Your task to perform on an android device: open app "Chime – Mobile Banking" (install if not already installed) and enter user name: "bullfrog@inbox.com" and password: "breaker" Image 0: 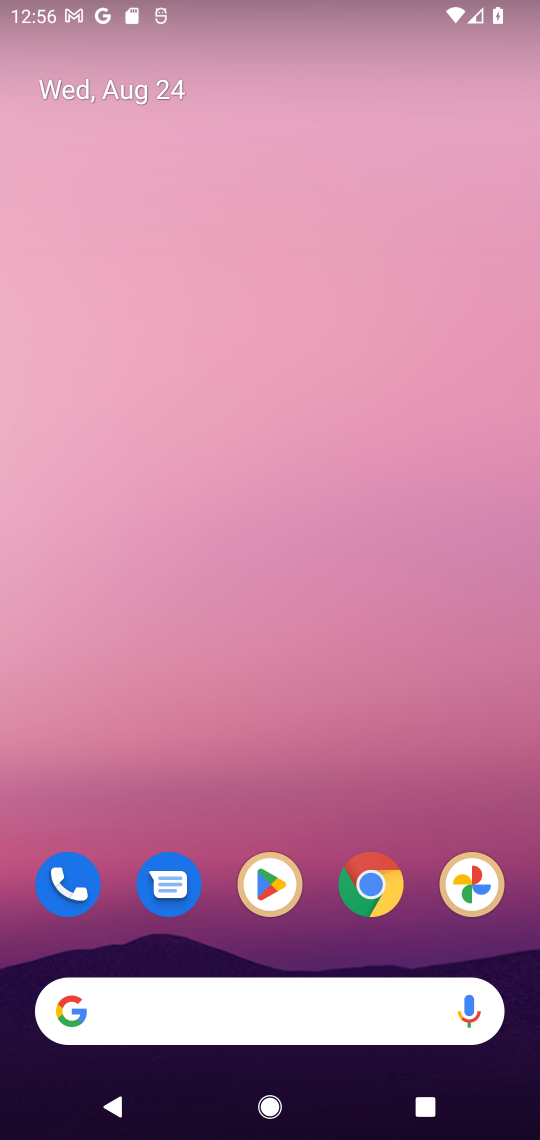
Step 0: drag from (265, 1008) to (367, 64)
Your task to perform on an android device: open app "Chime – Mobile Banking" (install if not already installed) and enter user name: "bullfrog@inbox.com" and password: "breaker" Image 1: 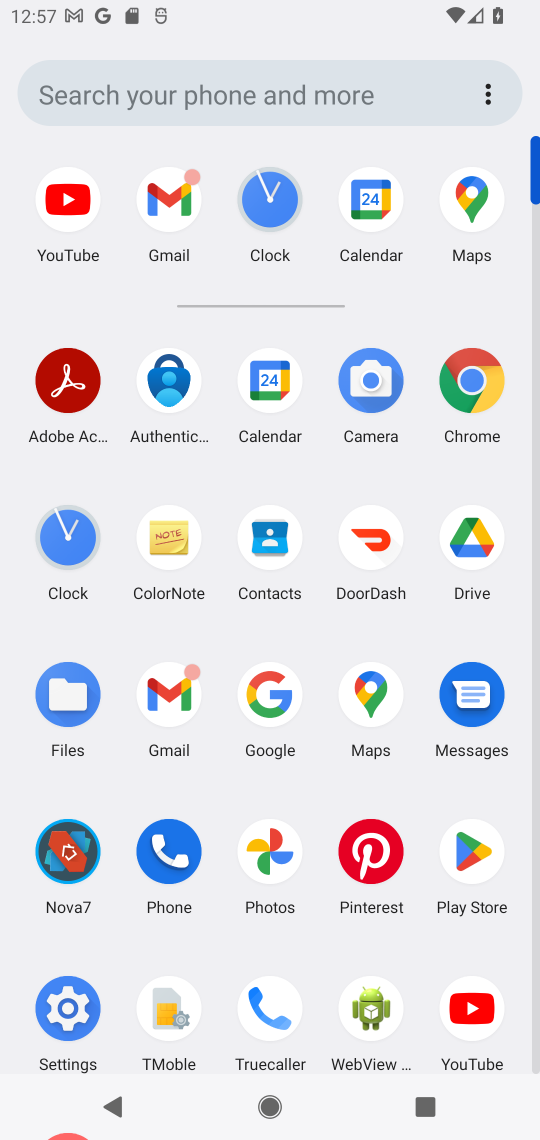
Step 1: click (471, 852)
Your task to perform on an android device: open app "Chime – Mobile Banking" (install if not already installed) and enter user name: "bullfrog@inbox.com" and password: "breaker" Image 2: 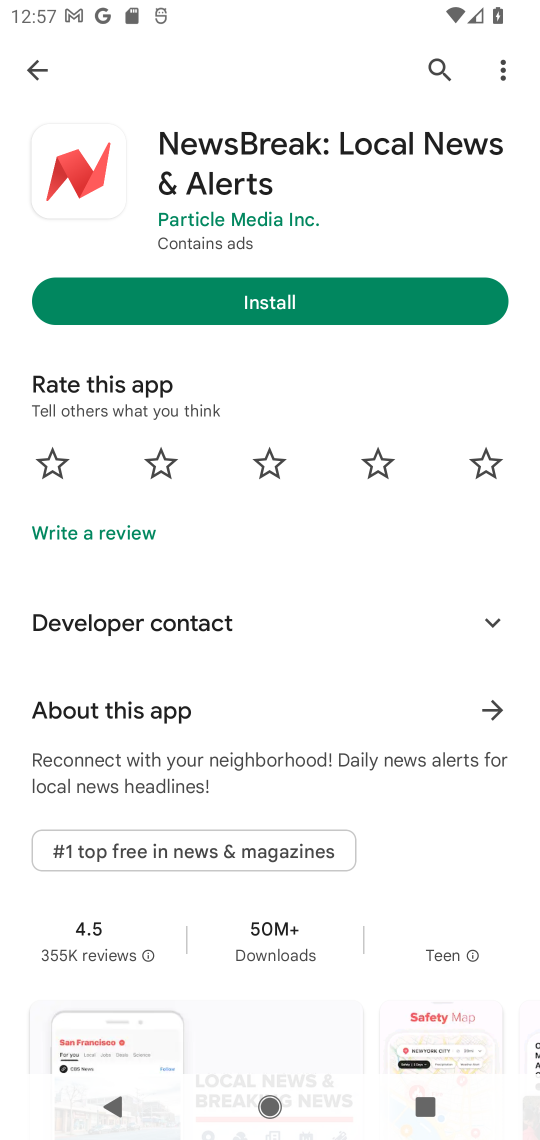
Step 2: press back button
Your task to perform on an android device: open app "Chime – Mobile Banking" (install if not already installed) and enter user name: "bullfrog@inbox.com" and password: "breaker" Image 3: 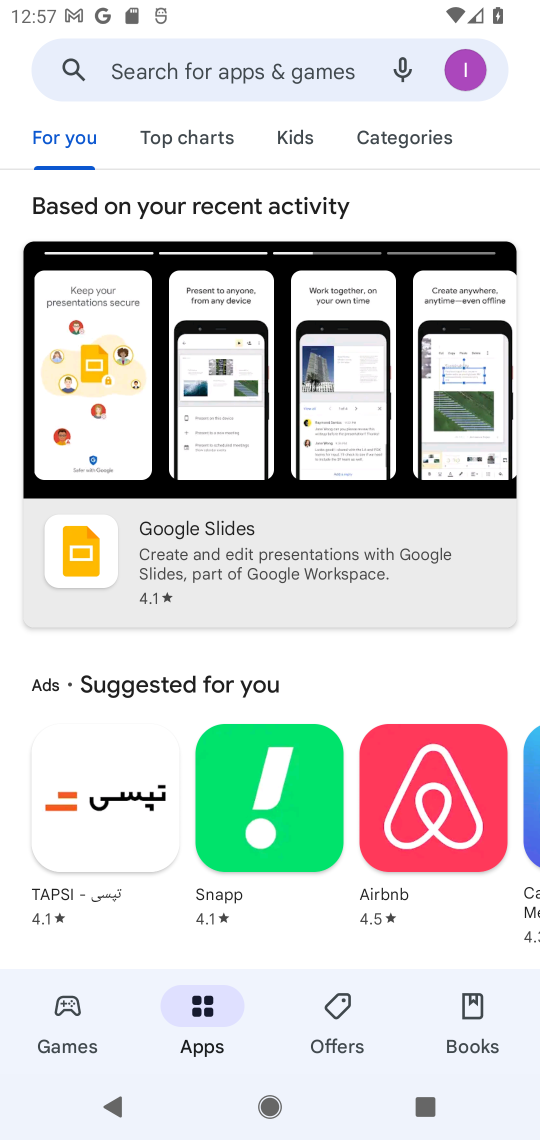
Step 3: click (312, 69)
Your task to perform on an android device: open app "Chime – Mobile Banking" (install if not already installed) and enter user name: "bullfrog@inbox.com" and password: "breaker" Image 4: 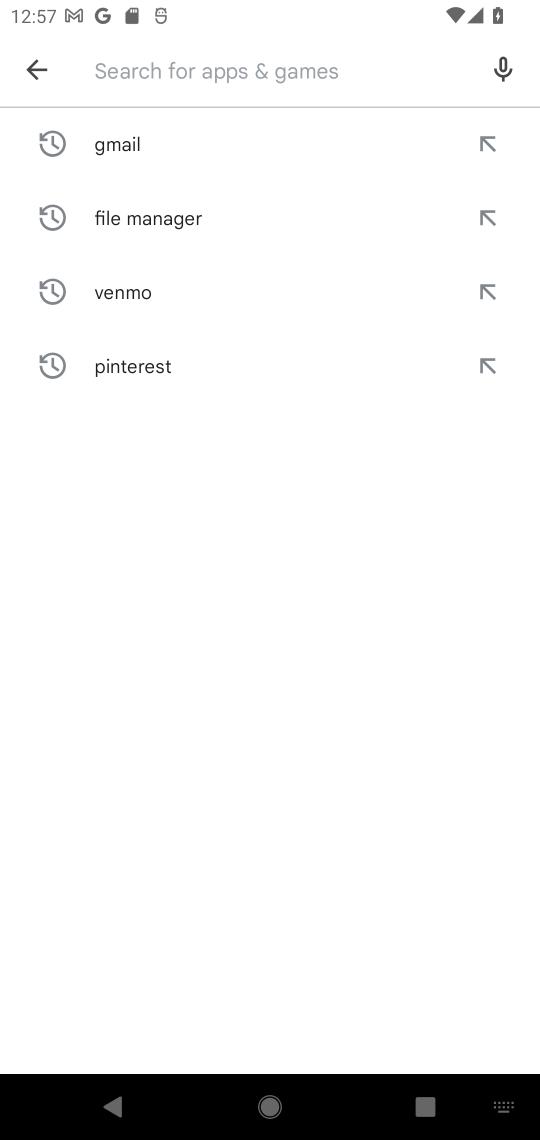
Step 4: type "Chime - Mobile Banking"
Your task to perform on an android device: open app "Chime – Mobile Banking" (install if not already installed) and enter user name: "bullfrog@inbox.com" and password: "breaker" Image 5: 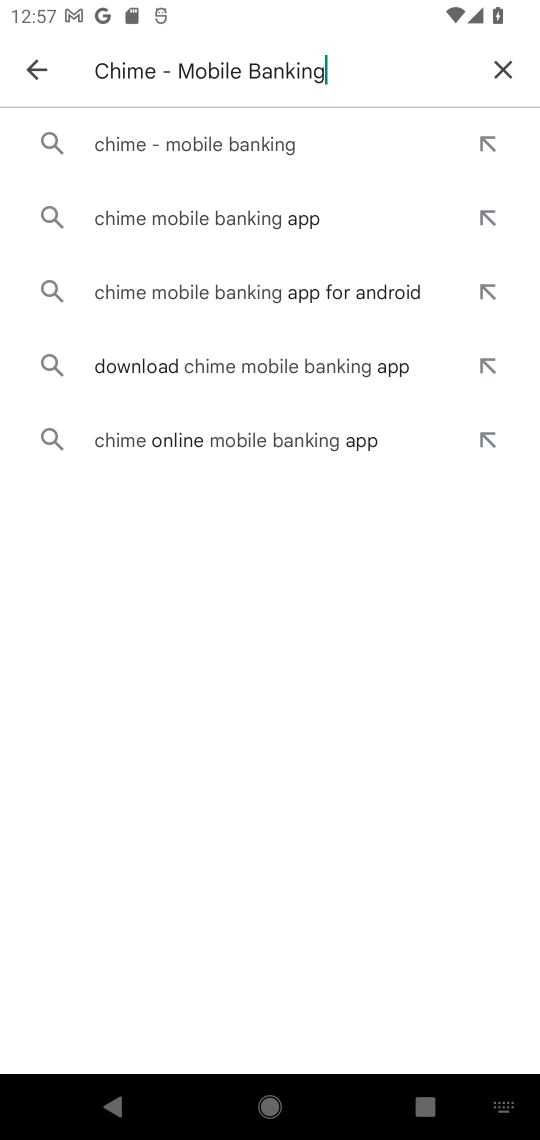
Step 5: click (252, 151)
Your task to perform on an android device: open app "Chime – Mobile Banking" (install if not already installed) and enter user name: "bullfrog@inbox.com" and password: "breaker" Image 6: 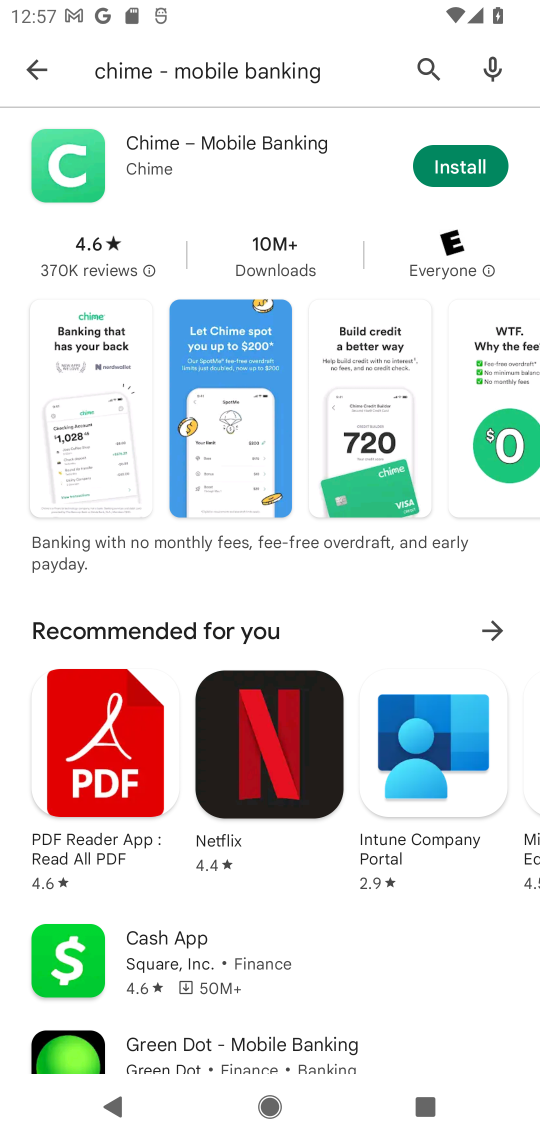
Step 6: click (459, 161)
Your task to perform on an android device: open app "Chime – Mobile Banking" (install if not already installed) and enter user name: "bullfrog@inbox.com" and password: "breaker" Image 7: 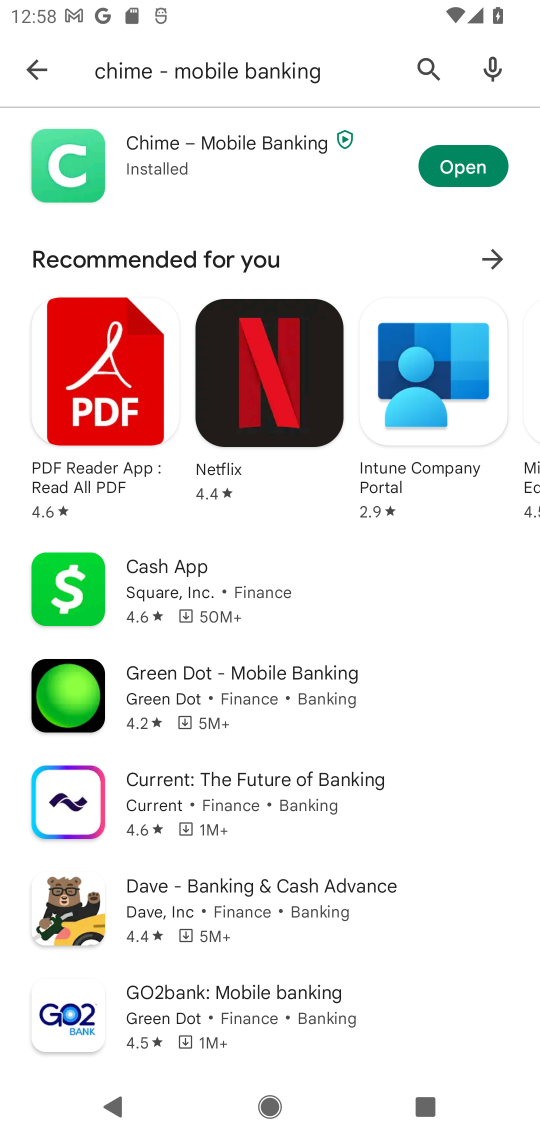
Step 7: click (467, 167)
Your task to perform on an android device: open app "Chime – Mobile Banking" (install if not already installed) and enter user name: "bullfrog@inbox.com" and password: "breaker" Image 8: 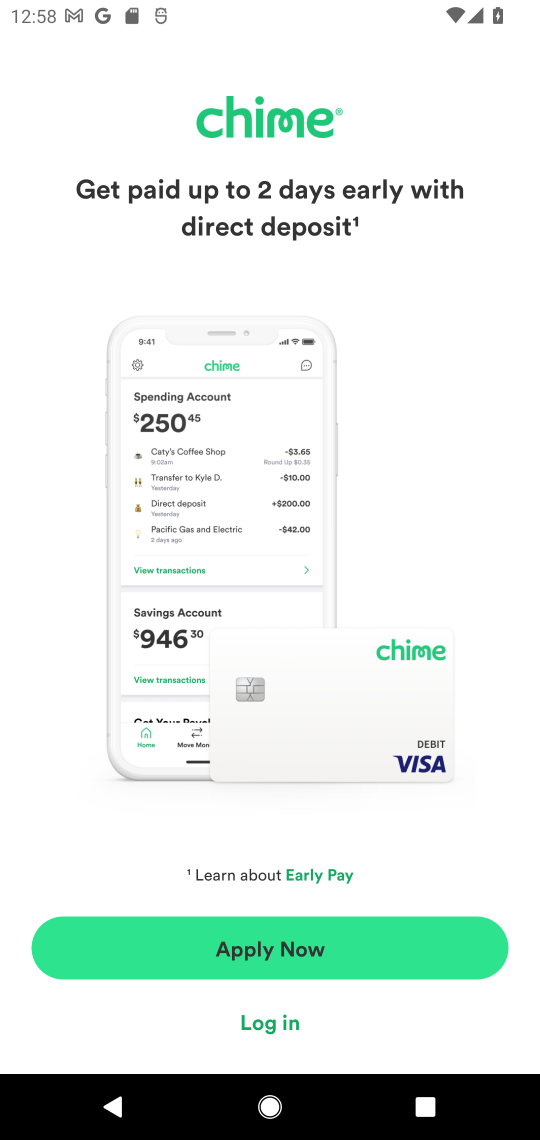
Step 8: click (273, 1024)
Your task to perform on an android device: open app "Chime – Mobile Banking" (install if not already installed) and enter user name: "bullfrog@inbox.com" and password: "breaker" Image 9: 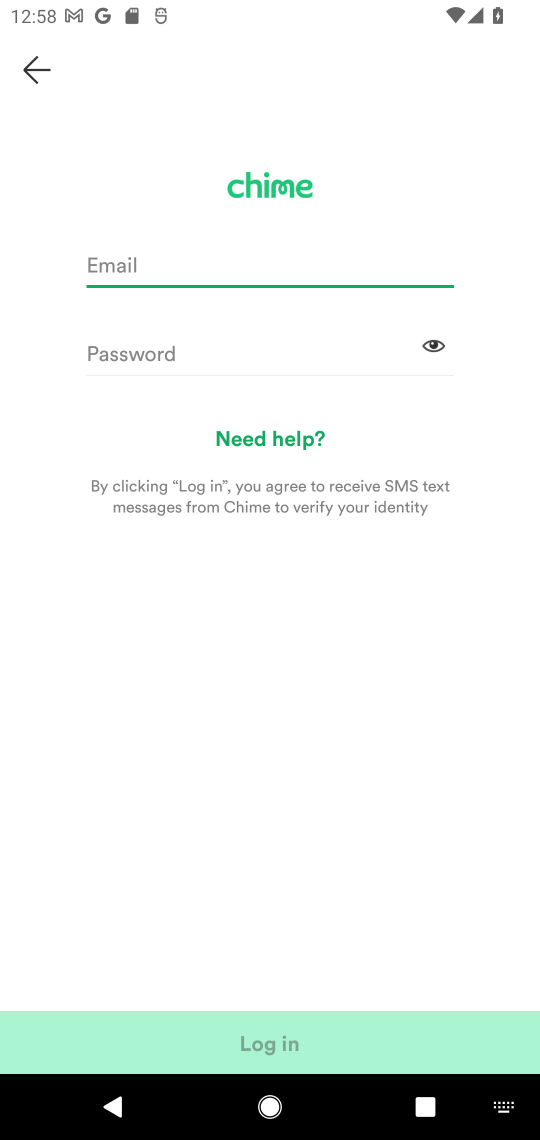
Step 9: type "bullfrog@inbox.com"
Your task to perform on an android device: open app "Chime – Mobile Banking" (install if not already installed) and enter user name: "bullfrog@inbox.com" and password: "breaker" Image 10: 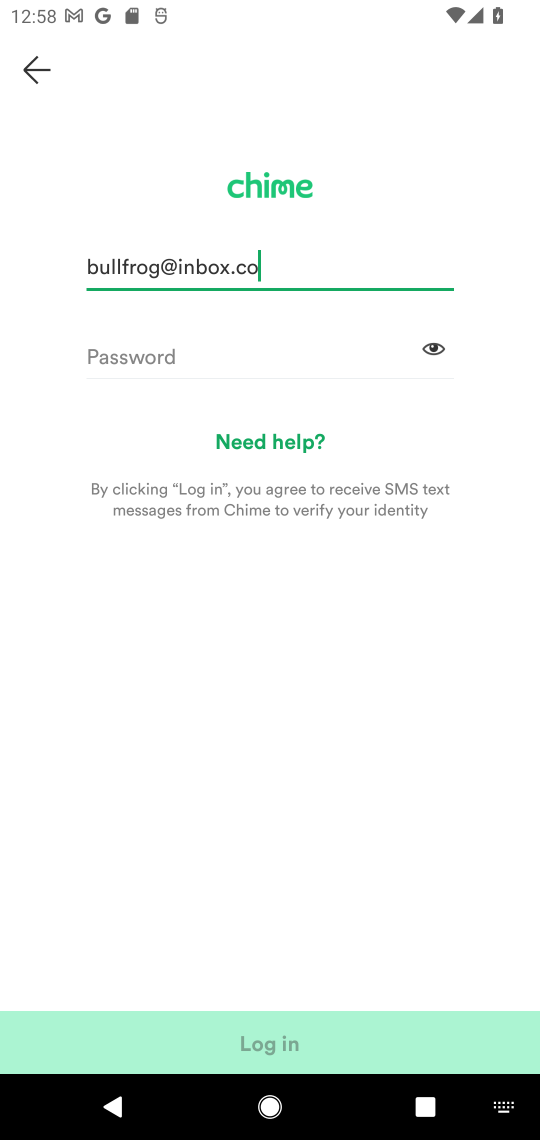
Step 10: type ""
Your task to perform on an android device: open app "Chime – Mobile Banking" (install if not already installed) and enter user name: "bullfrog@inbox.com" and password: "breaker" Image 11: 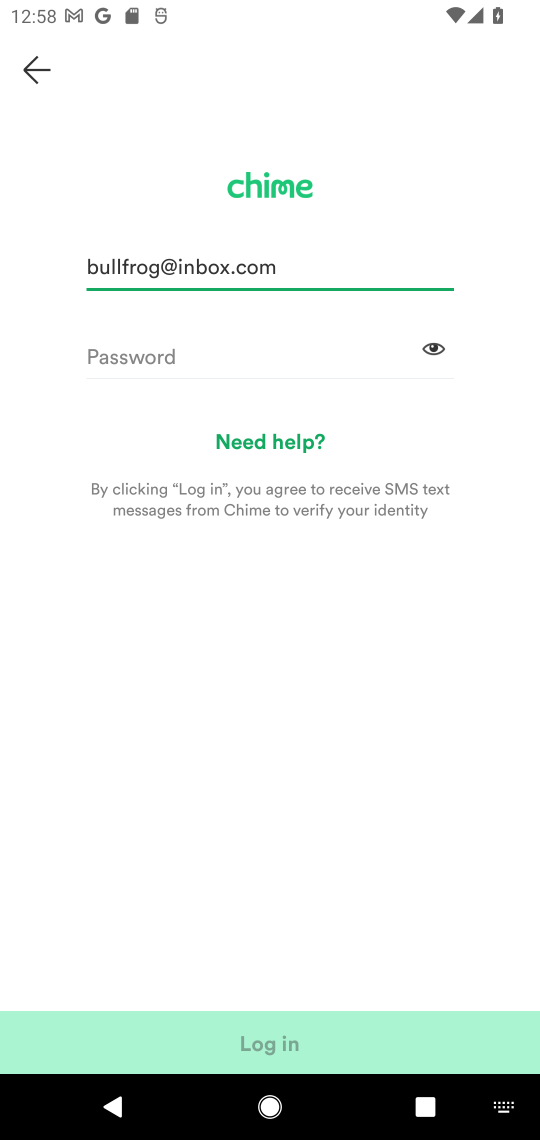
Step 11: click (180, 339)
Your task to perform on an android device: open app "Chime – Mobile Banking" (install if not already installed) and enter user name: "bullfrog@inbox.com" and password: "breaker" Image 12: 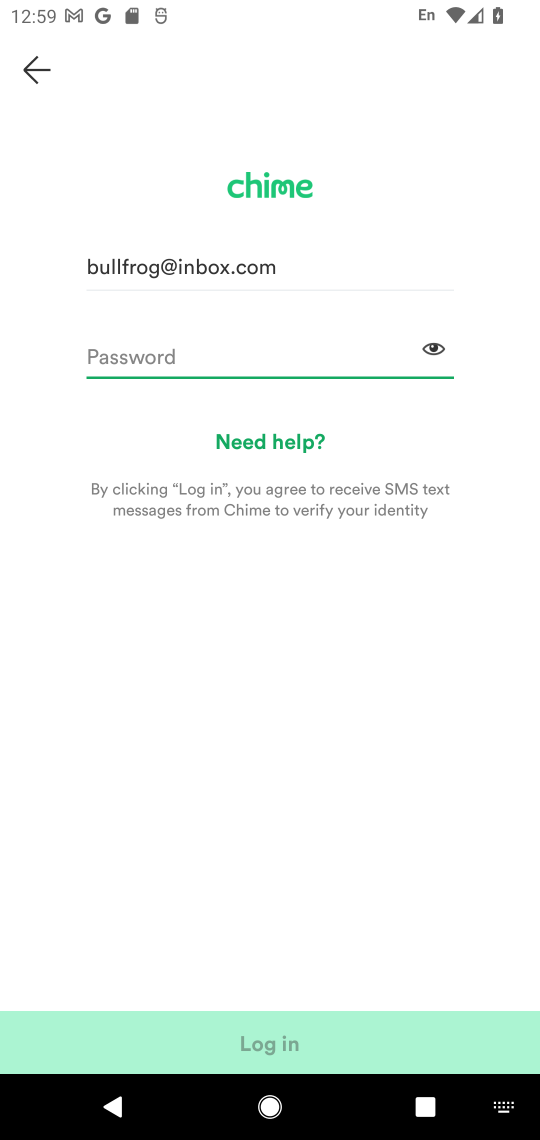
Step 12: type "breaker"
Your task to perform on an android device: open app "Chime – Mobile Banking" (install if not already installed) and enter user name: "bullfrog@inbox.com" and password: "breaker" Image 13: 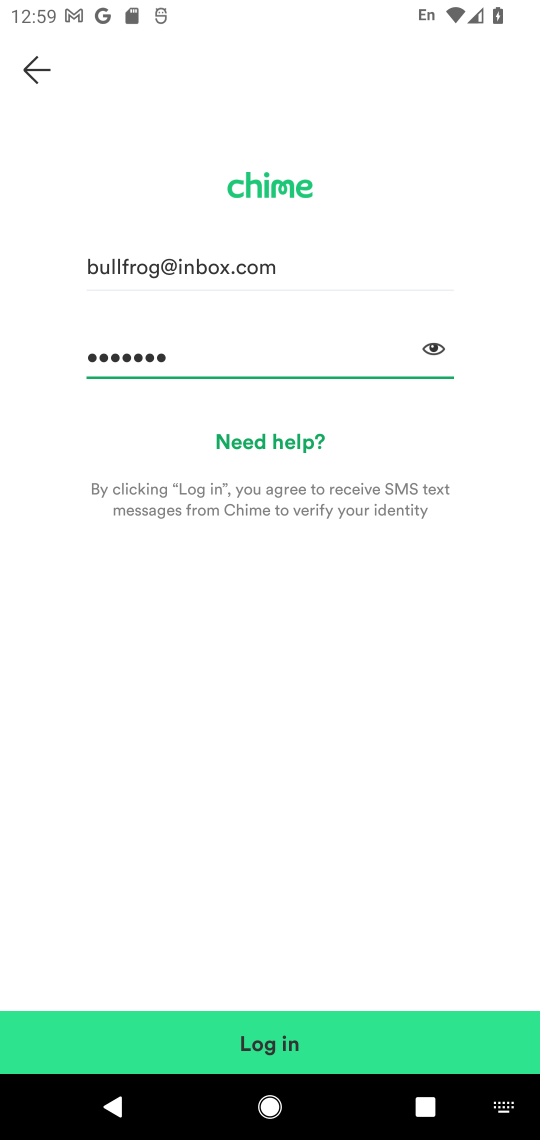
Step 13: task complete